Your task to perform on an android device: allow cookies in the chrome app Image 0: 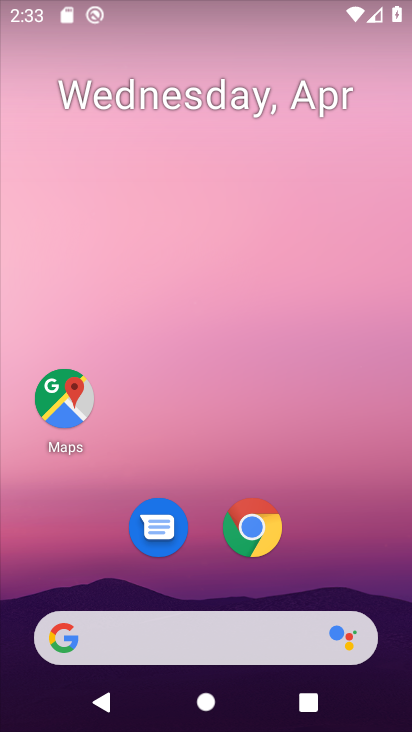
Step 0: drag from (193, 623) to (316, 181)
Your task to perform on an android device: allow cookies in the chrome app Image 1: 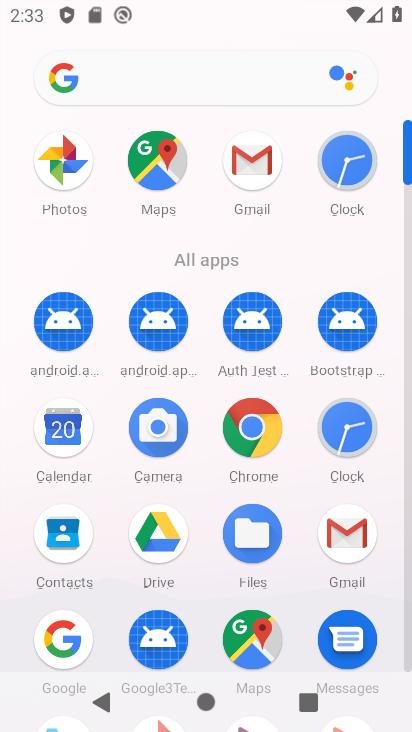
Step 1: click (261, 435)
Your task to perform on an android device: allow cookies in the chrome app Image 2: 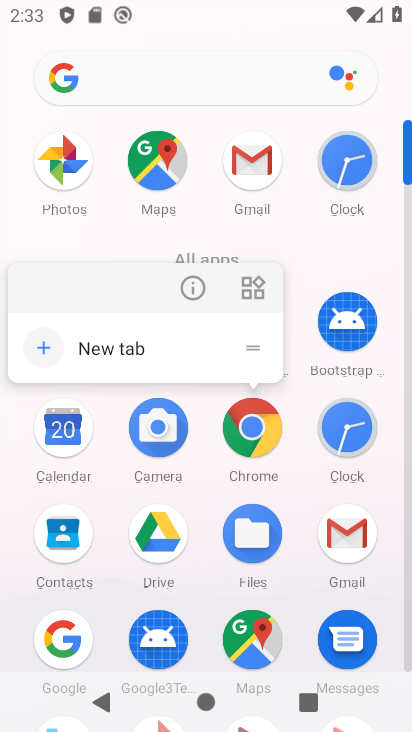
Step 2: click (247, 435)
Your task to perform on an android device: allow cookies in the chrome app Image 3: 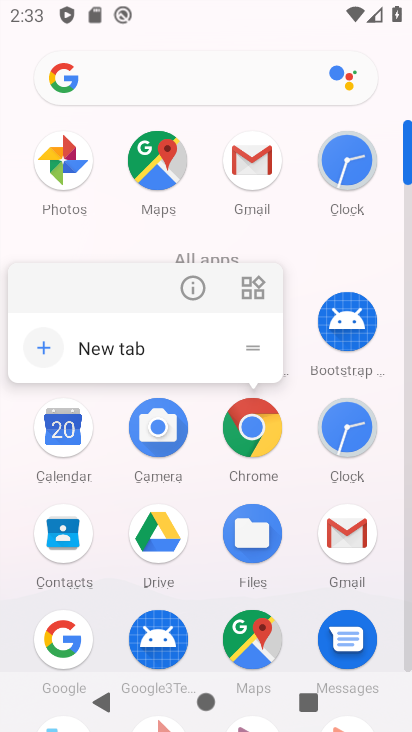
Step 3: click (257, 432)
Your task to perform on an android device: allow cookies in the chrome app Image 4: 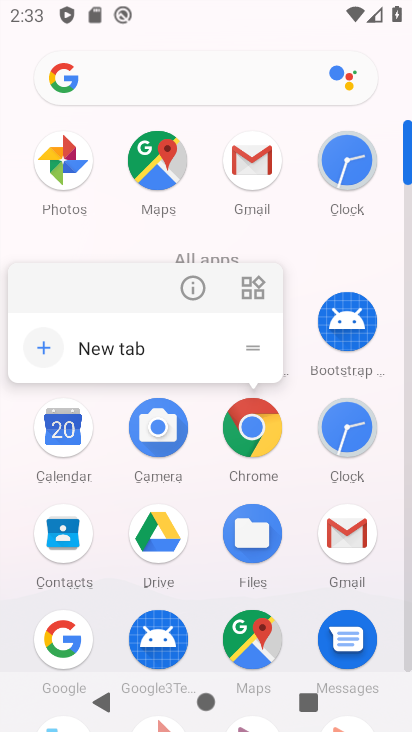
Step 4: click (256, 434)
Your task to perform on an android device: allow cookies in the chrome app Image 5: 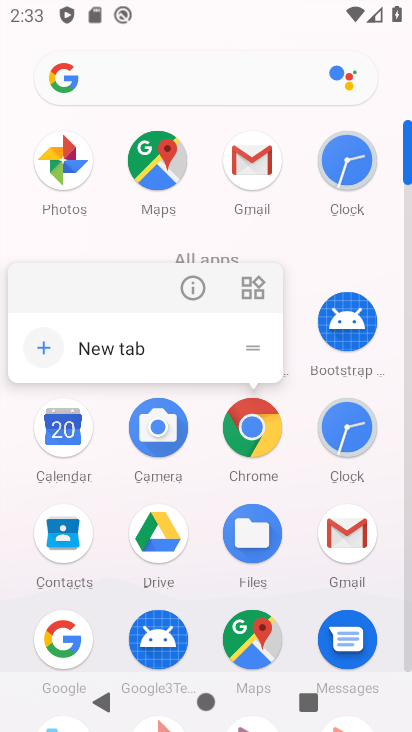
Step 5: click (250, 427)
Your task to perform on an android device: allow cookies in the chrome app Image 6: 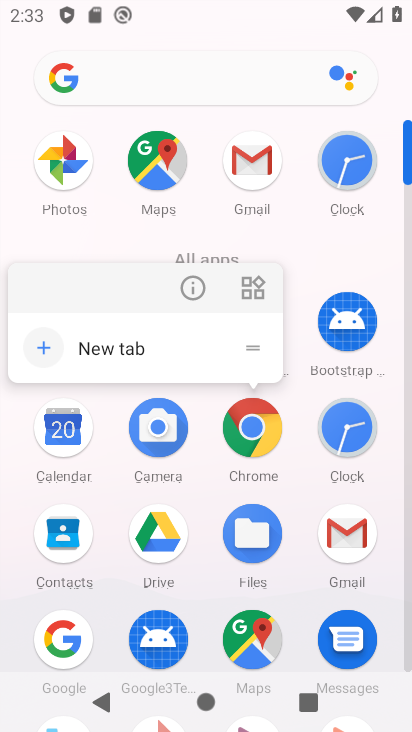
Step 6: click (253, 441)
Your task to perform on an android device: allow cookies in the chrome app Image 7: 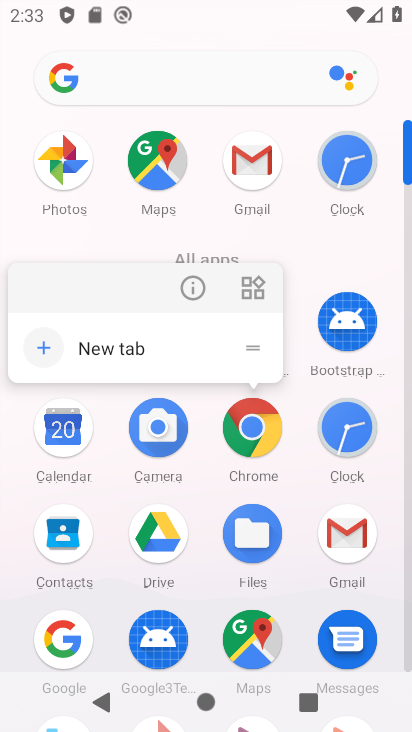
Step 7: click (253, 426)
Your task to perform on an android device: allow cookies in the chrome app Image 8: 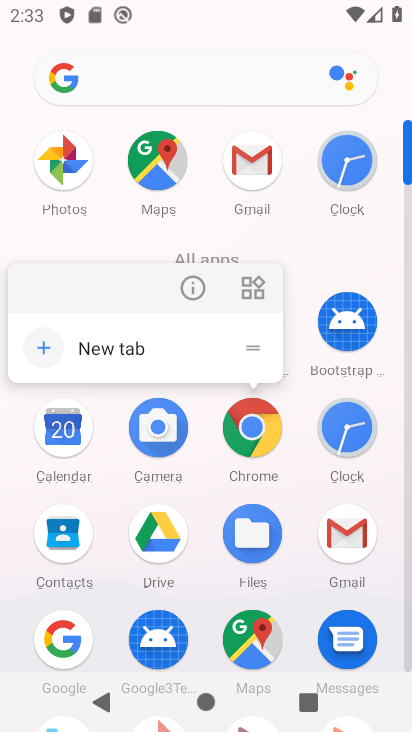
Step 8: click (250, 425)
Your task to perform on an android device: allow cookies in the chrome app Image 9: 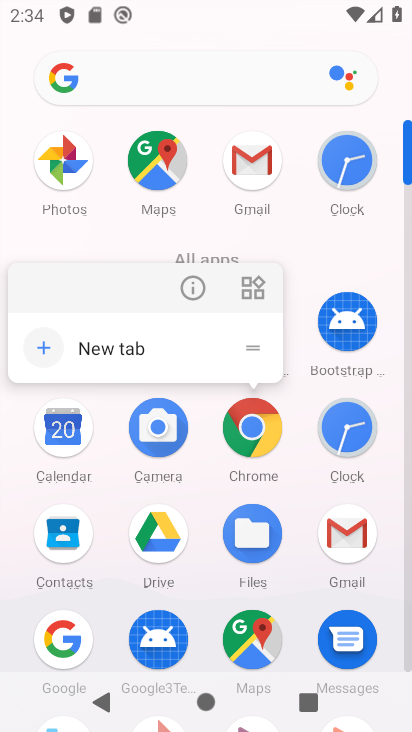
Step 9: click (254, 432)
Your task to perform on an android device: allow cookies in the chrome app Image 10: 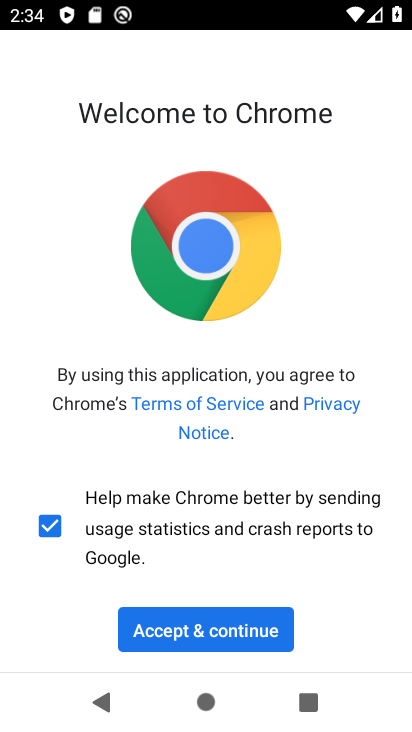
Step 10: click (199, 623)
Your task to perform on an android device: allow cookies in the chrome app Image 11: 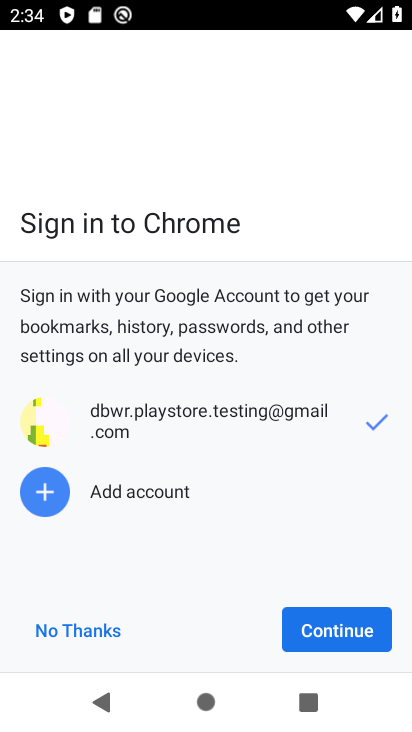
Step 11: click (318, 624)
Your task to perform on an android device: allow cookies in the chrome app Image 12: 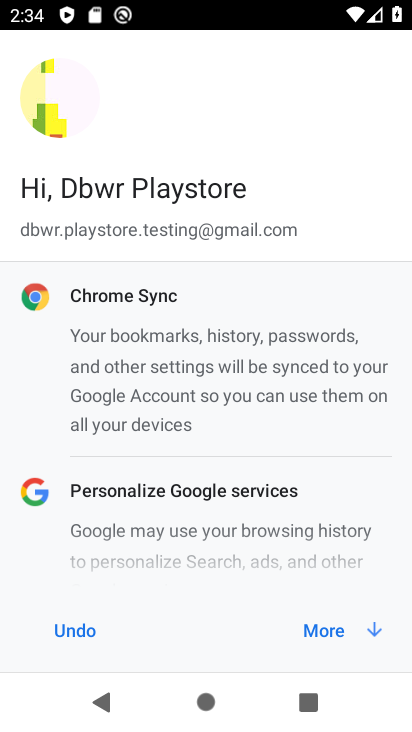
Step 12: click (321, 632)
Your task to perform on an android device: allow cookies in the chrome app Image 13: 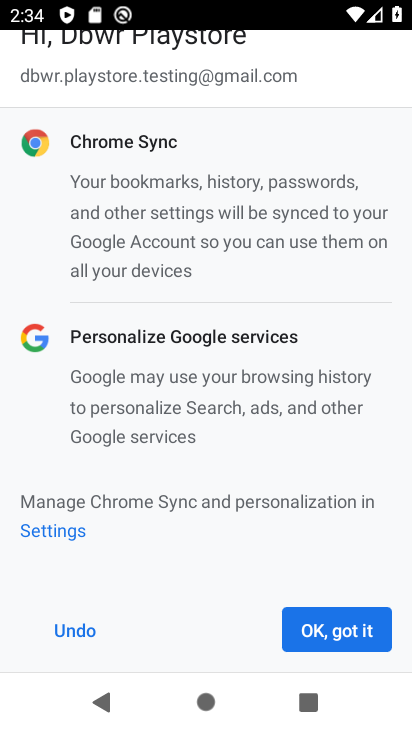
Step 13: click (312, 632)
Your task to perform on an android device: allow cookies in the chrome app Image 14: 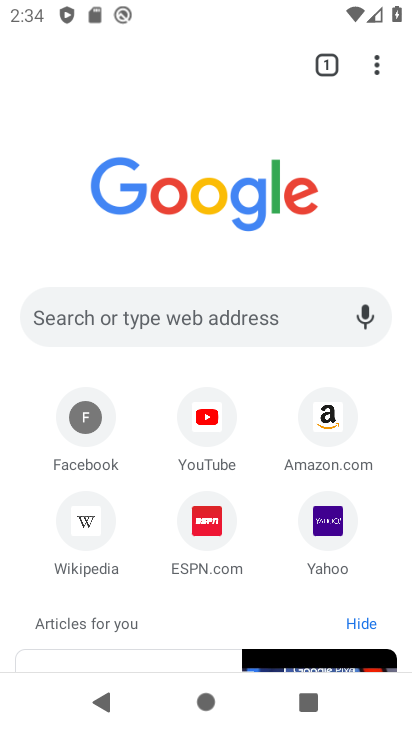
Step 14: click (375, 68)
Your task to perform on an android device: allow cookies in the chrome app Image 15: 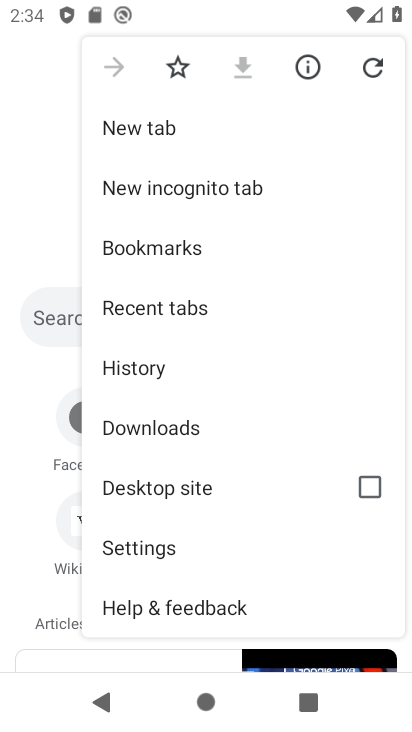
Step 15: click (131, 553)
Your task to perform on an android device: allow cookies in the chrome app Image 16: 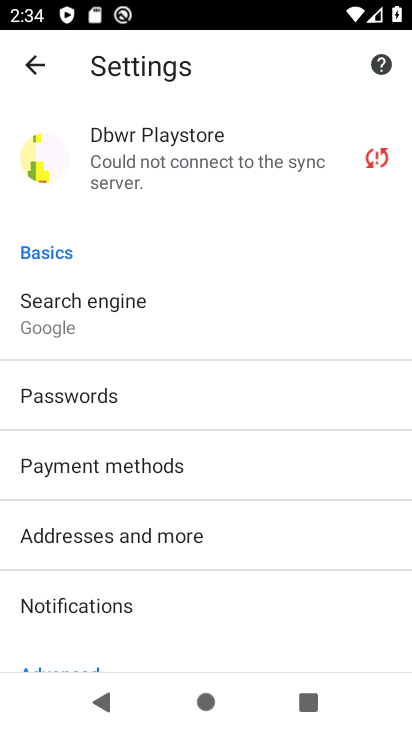
Step 16: drag from (189, 596) to (322, 163)
Your task to perform on an android device: allow cookies in the chrome app Image 17: 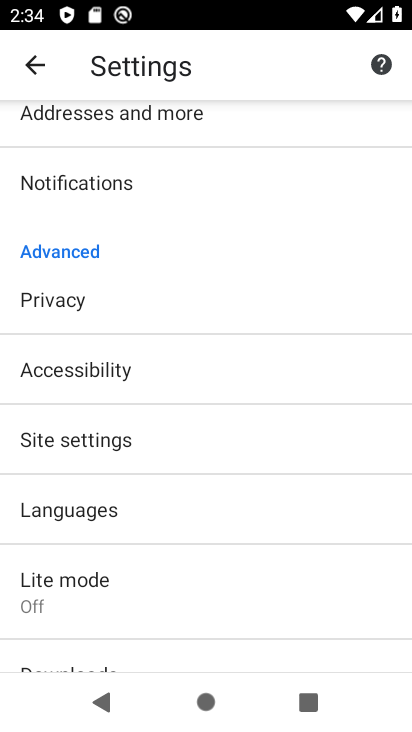
Step 17: click (76, 440)
Your task to perform on an android device: allow cookies in the chrome app Image 18: 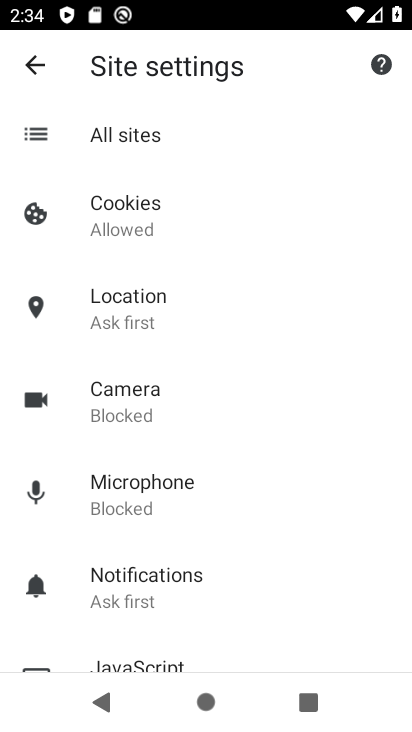
Step 18: click (143, 230)
Your task to perform on an android device: allow cookies in the chrome app Image 19: 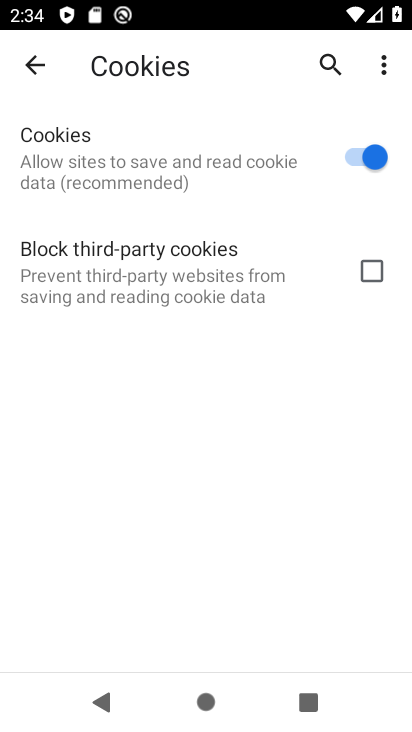
Step 19: task complete